Your task to perform on an android device: Search for a new lawnmower on Lowes.com Image 0: 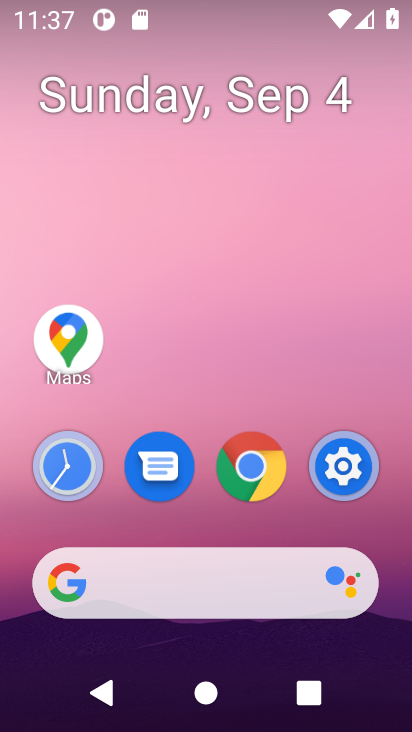
Step 0: click (105, 696)
Your task to perform on an android device: Search for a new lawnmower on Lowes.com Image 1: 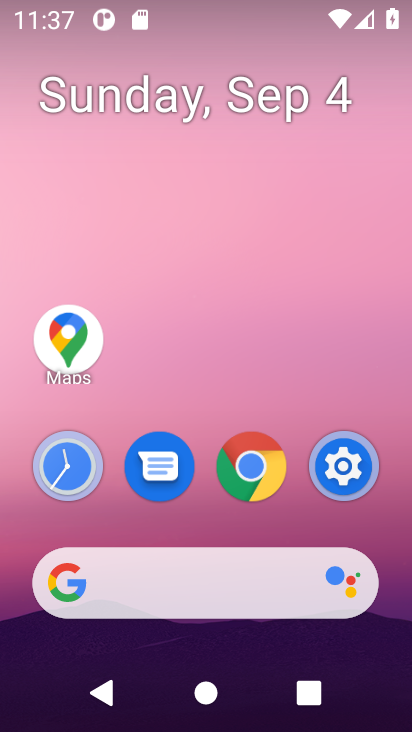
Step 1: click (215, 561)
Your task to perform on an android device: Search for a new lawnmower on Lowes.com Image 2: 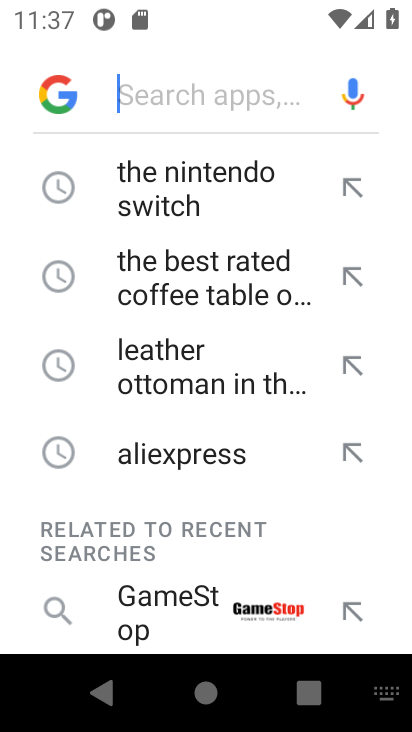
Step 2: type "a new lawnmower on Lowes.com"
Your task to perform on an android device: Search for a new lawnmower on Lowes.com Image 3: 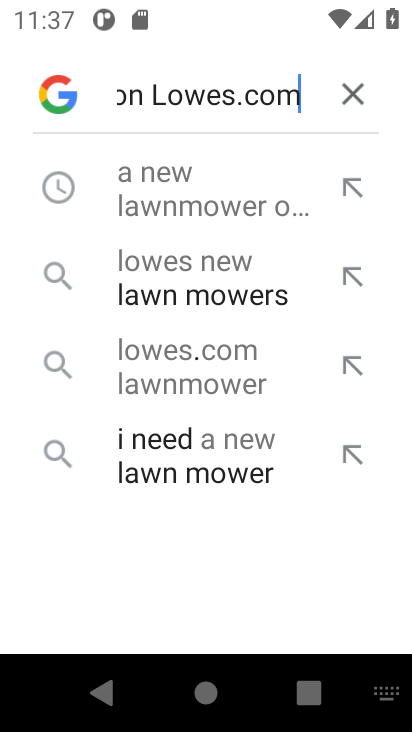
Step 3: click (199, 197)
Your task to perform on an android device: Search for a new lawnmower on Lowes.com Image 4: 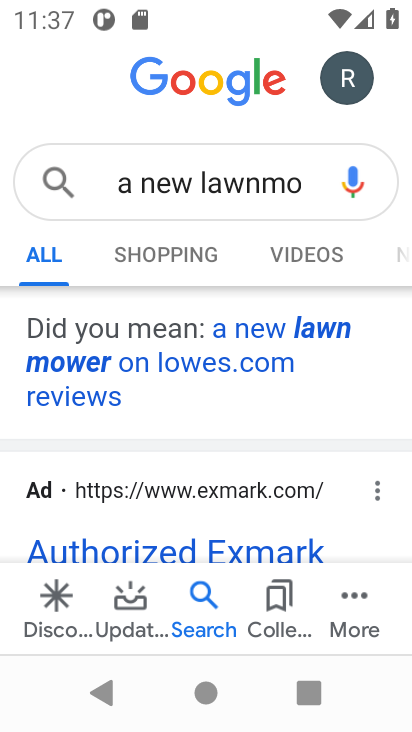
Step 4: task complete